Your task to perform on an android device: change notification settings in the gmail app Image 0: 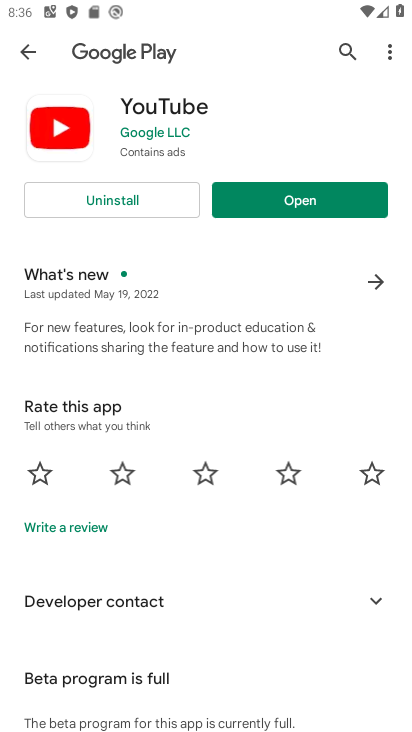
Step 0: press home button
Your task to perform on an android device: change notification settings in the gmail app Image 1: 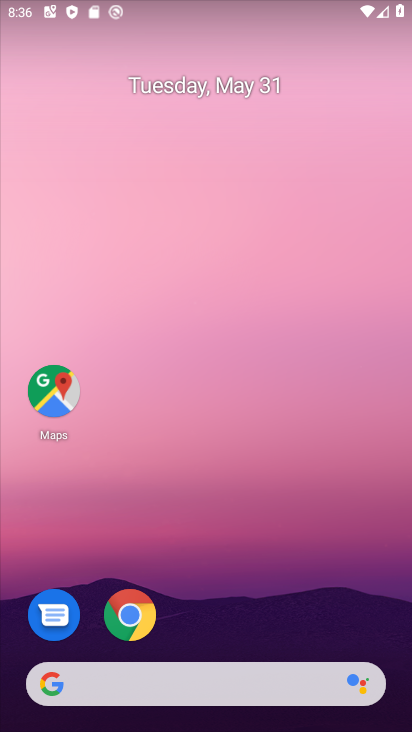
Step 1: drag from (287, 629) to (267, 262)
Your task to perform on an android device: change notification settings in the gmail app Image 2: 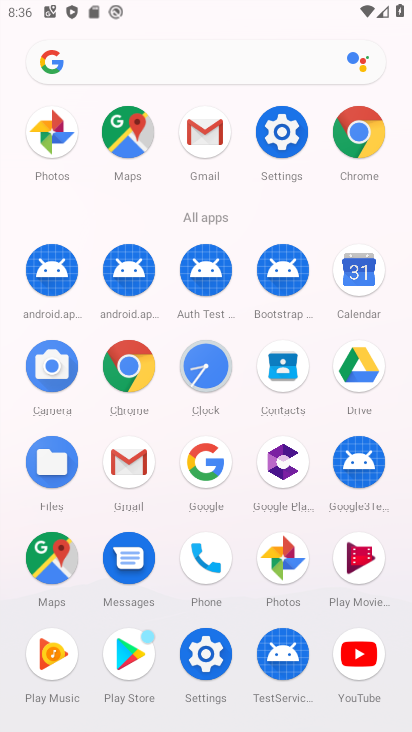
Step 2: click (129, 463)
Your task to perform on an android device: change notification settings in the gmail app Image 3: 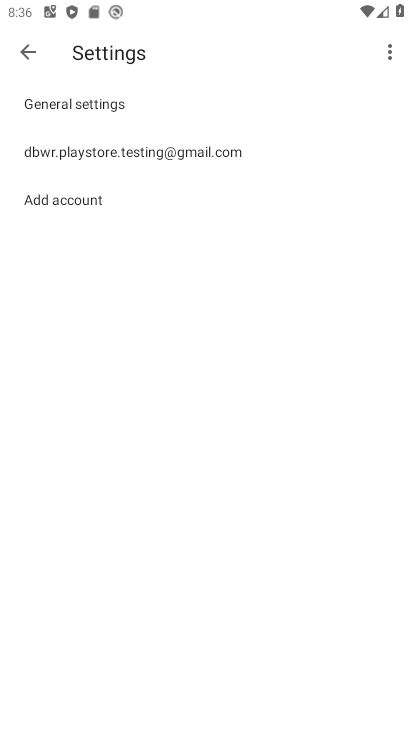
Step 3: click (191, 153)
Your task to perform on an android device: change notification settings in the gmail app Image 4: 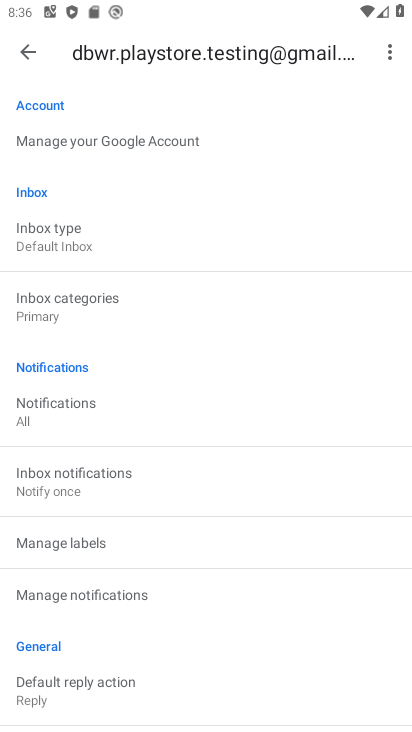
Step 4: click (97, 601)
Your task to perform on an android device: change notification settings in the gmail app Image 5: 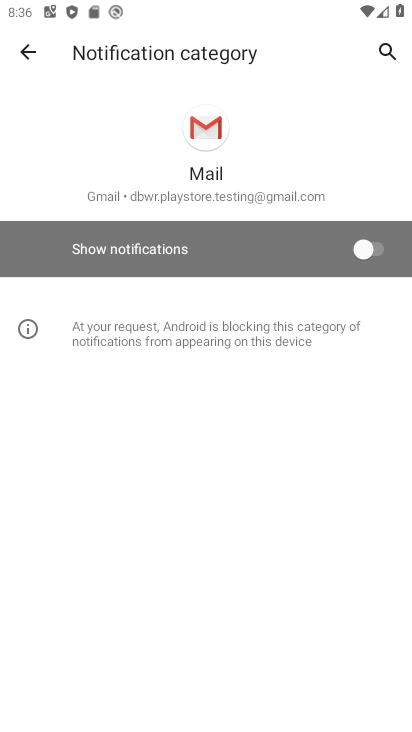
Step 5: click (378, 248)
Your task to perform on an android device: change notification settings in the gmail app Image 6: 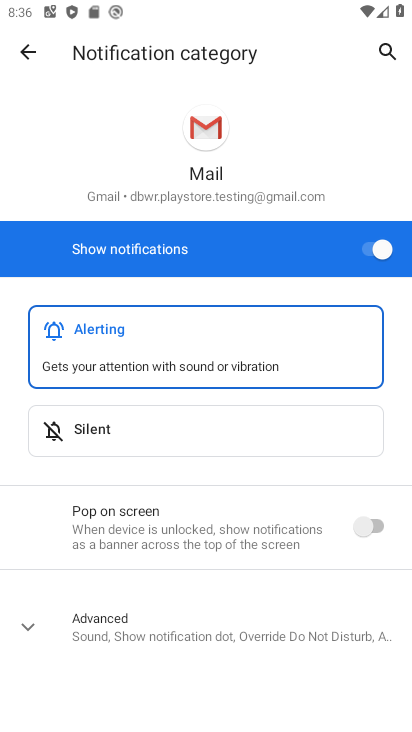
Step 6: task complete